Your task to perform on an android device: open device folders in google photos Image 0: 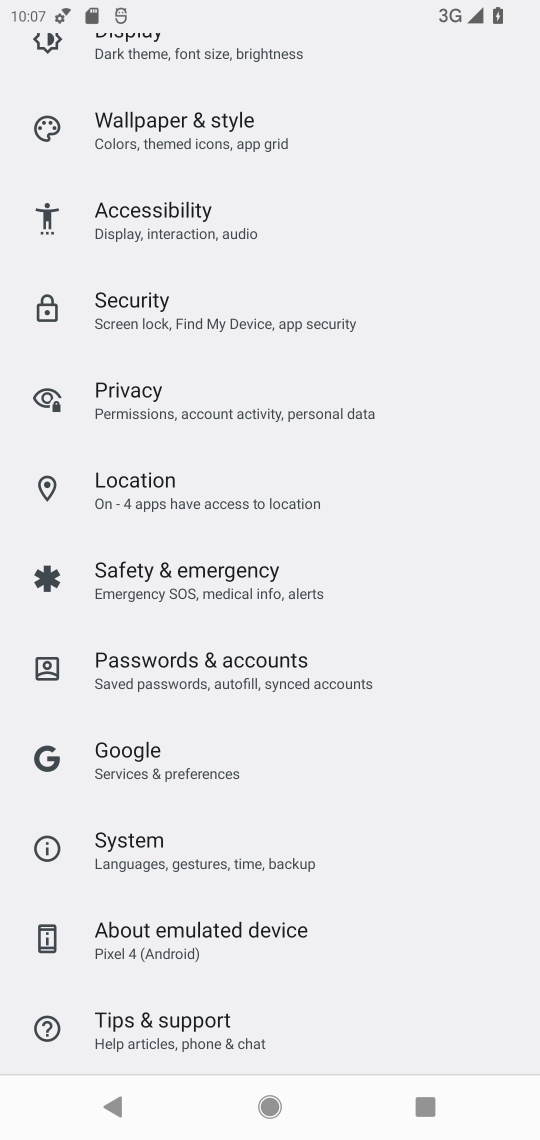
Step 0: press home button
Your task to perform on an android device: open device folders in google photos Image 1: 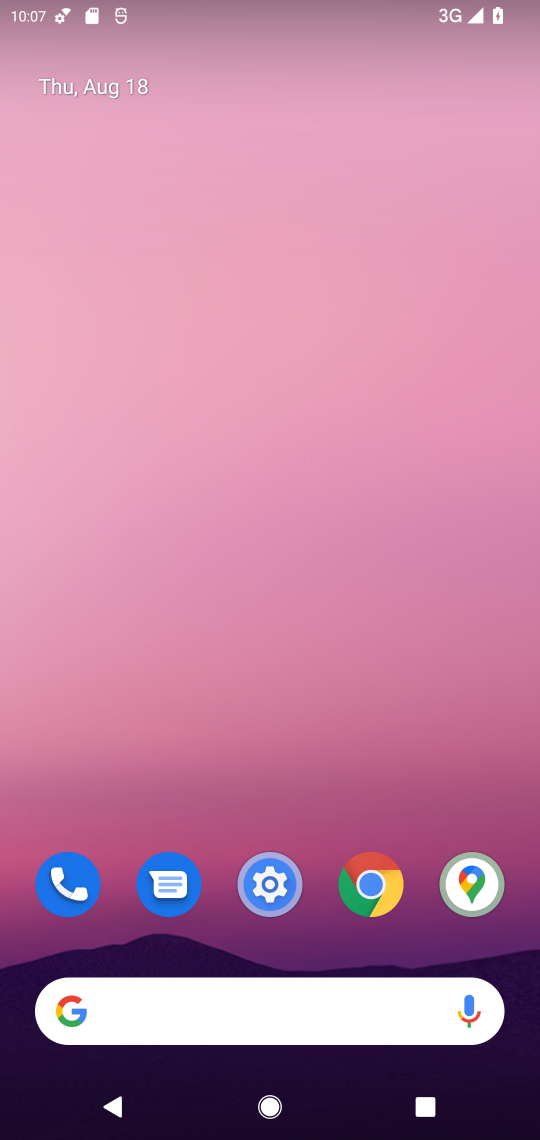
Step 1: drag from (283, 955) to (352, 32)
Your task to perform on an android device: open device folders in google photos Image 2: 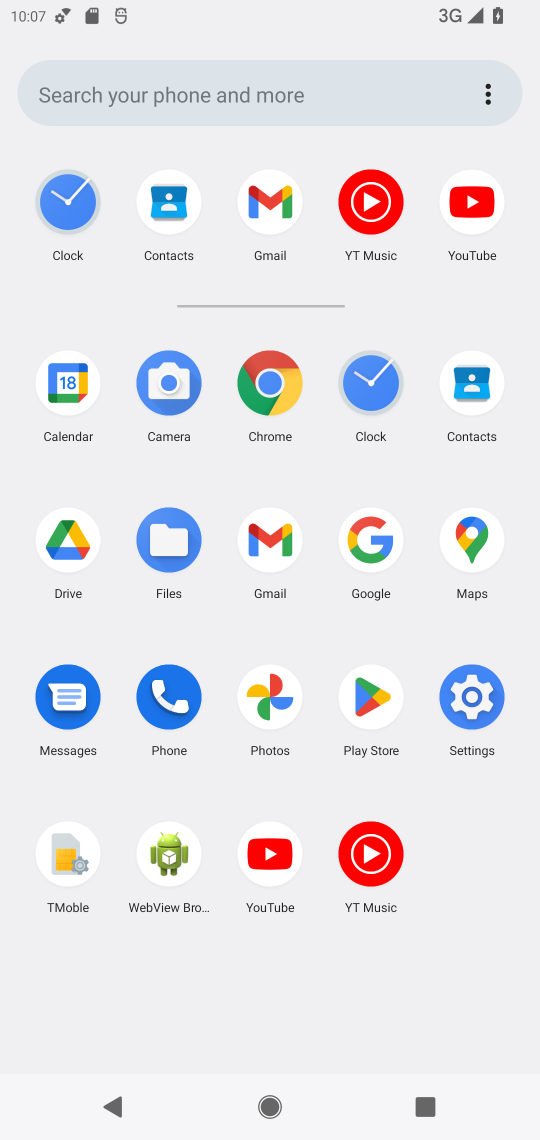
Step 2: click (268, 707)
Your task to perform on an android device: open device folders in google photos Image 3: 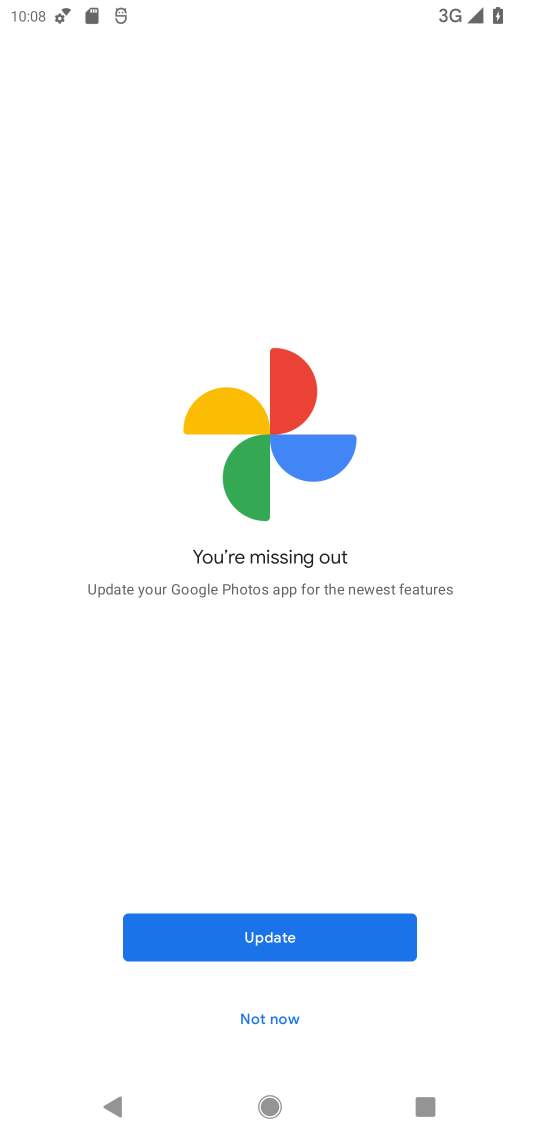
Step 3: click (265, 1018)
Your task to perform on an android device: open device folders in google photos Image 4: 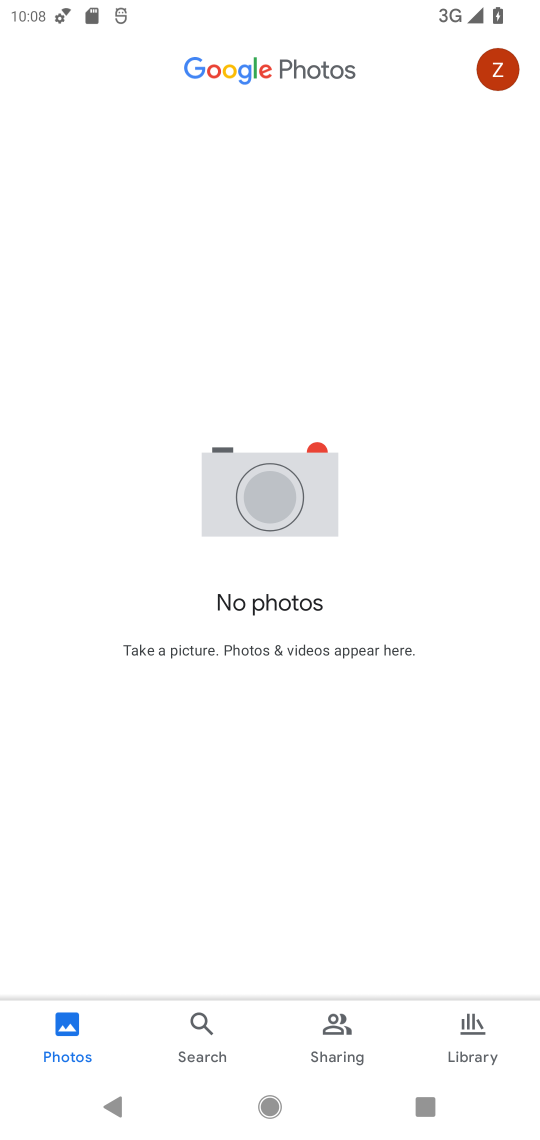
Step 4: click (500, 65)
Your task to perform on an android device: open device folders in google photos Image 5: 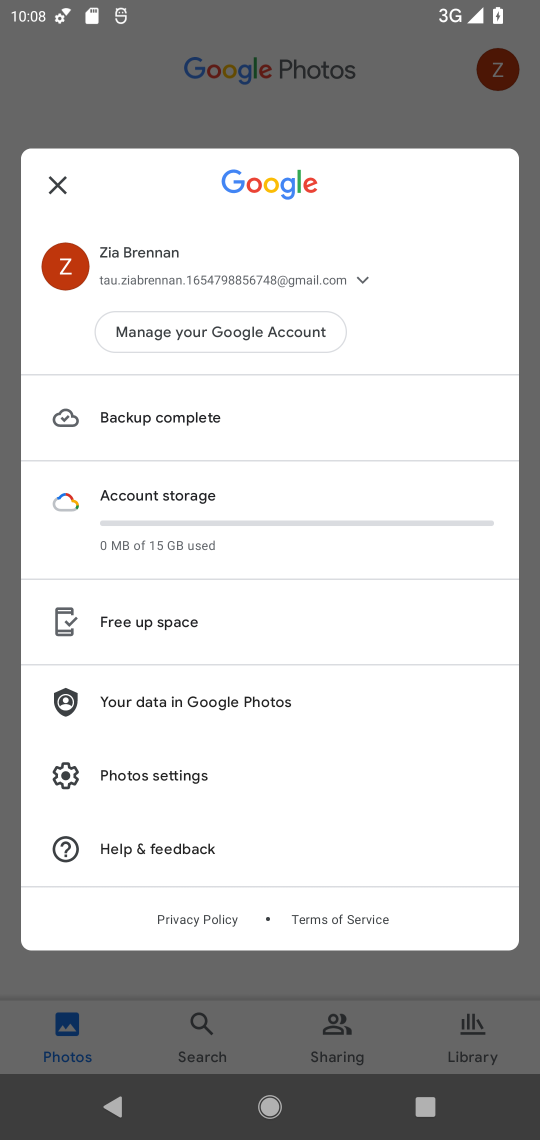
Step 5: click (191, 771)
Your task to perform on an android device: open device folders in google photos Image 6: 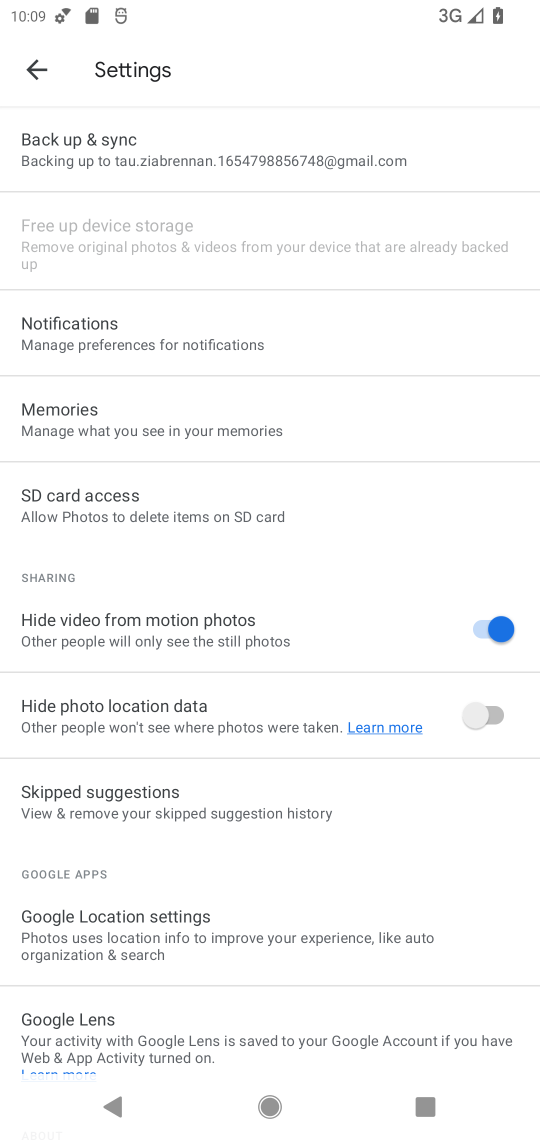
Step 6: task complete